Your task to perform on an android device: turn on showing notifications on the lock screen Image 0: 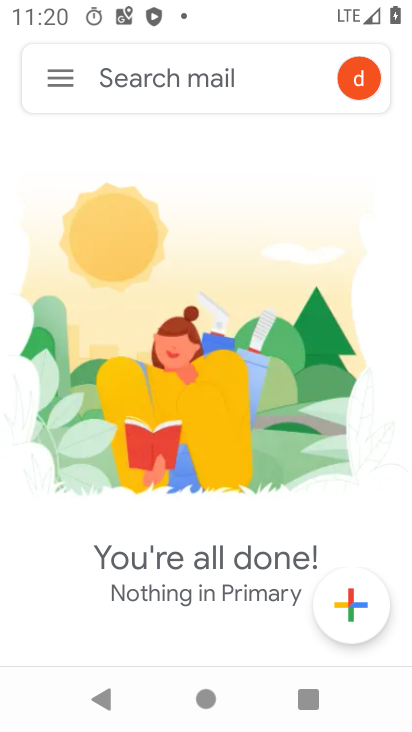
Step 0: press home button
Your task to perform on an android device: turn on showing notifications on the lock screen Image 1: 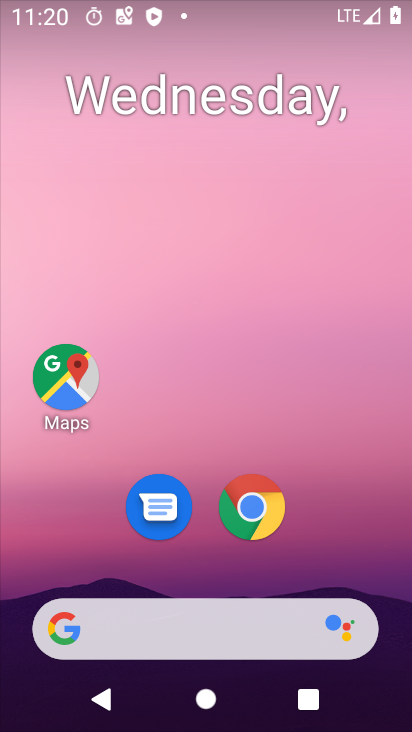
Step 1: drag from (236, 725) to (225, 0)
Your task to perform on an android device: turn on showing notifications on the lock screen Image 2: 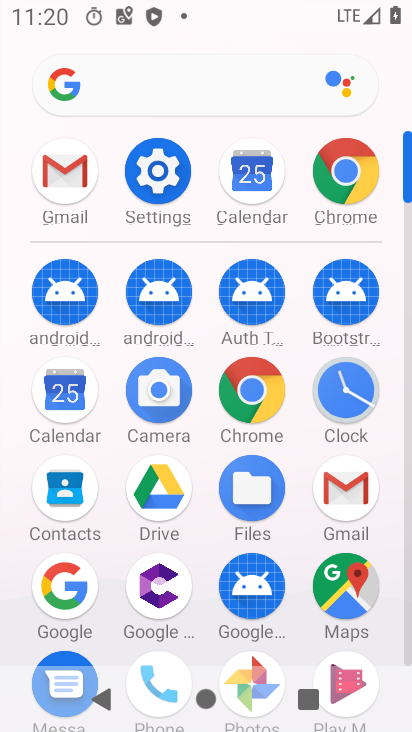
Step 2: click (162, 172)
Your task to perform on an android device: turn on showing notifications on the lock screen Image 3: 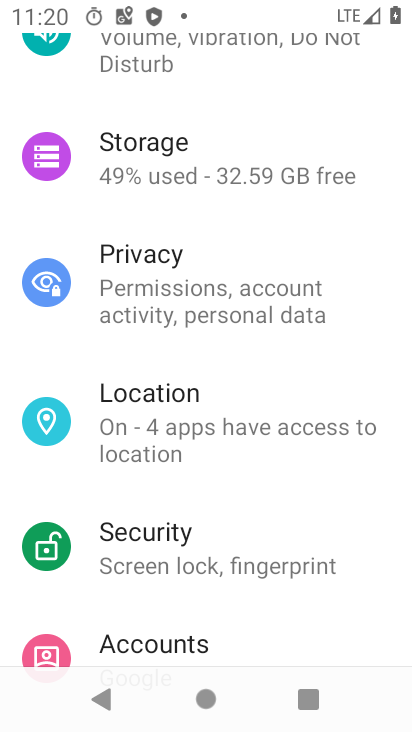
Step 3: drag from (256, 119) to (245, 581)
Your task to perform on an android device: turn on showing notifications on the lock screen Image 4: 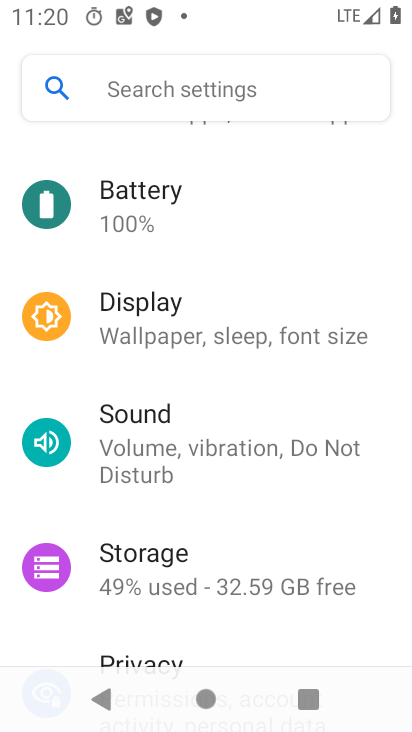
Step 4: drag from (245, 637) to (234, 250)
Your task to perform on an android device: turn on showing notifications on the lock screen Image 5: 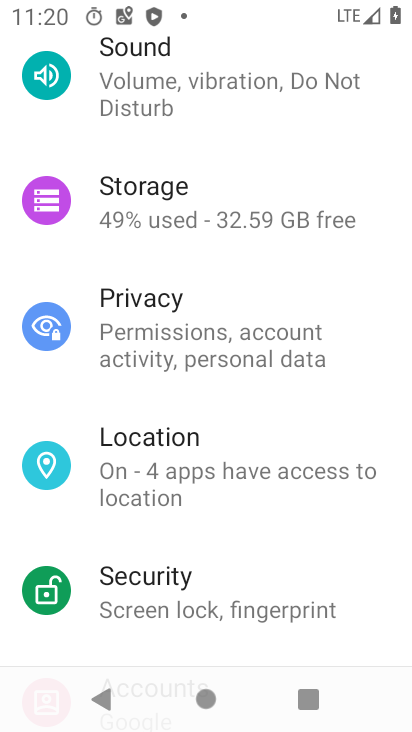
Step 5: drag from (258, 147) to (246, 576)
Your task to perform on an android device: turn on showing notifications on the lock screen Image 6: 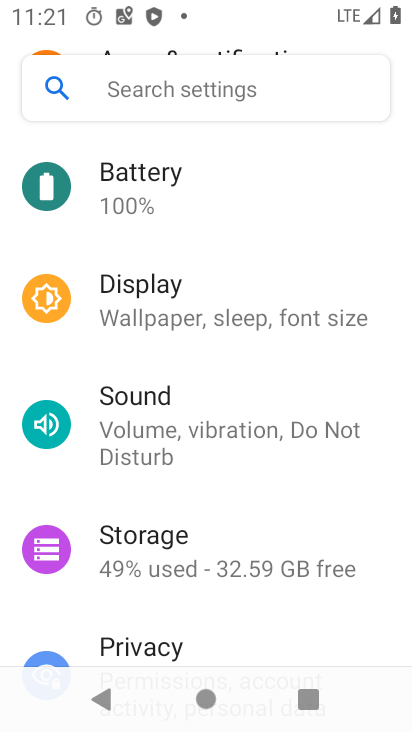
Step 6: drag from (271, 197) to (255, 601)
Your task to perform on an android device: turn on showing notifications on the lock screen Image 7: 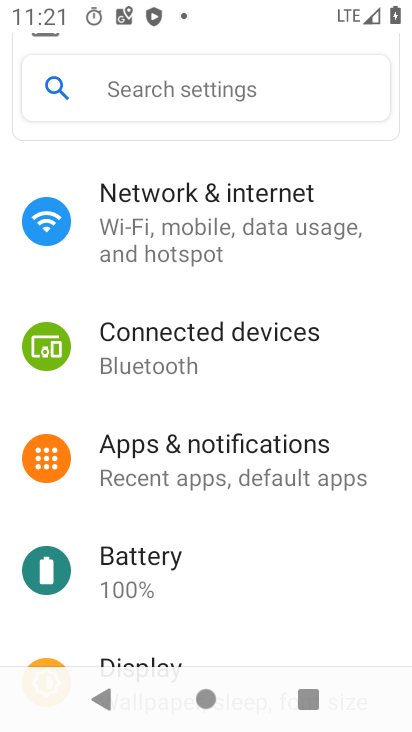
Step 7: click (254, 467)
Your task to perform on an android device: turn on showing notifications on the lock screen Image 8: 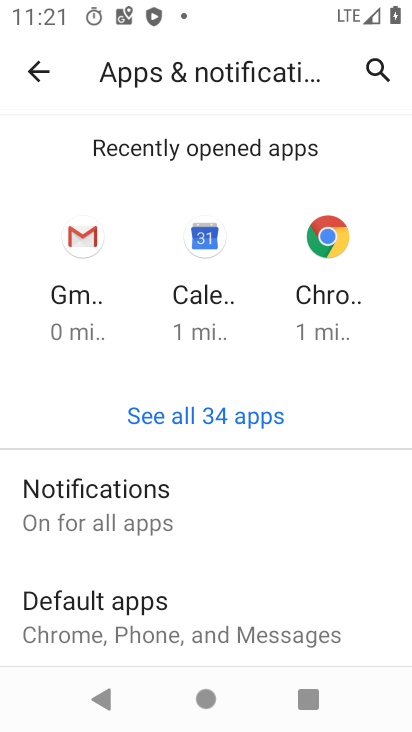
Step 8: click (128, 631)
Your task to perform on an android device: turn on showing notifications on the lock screen Image 9: 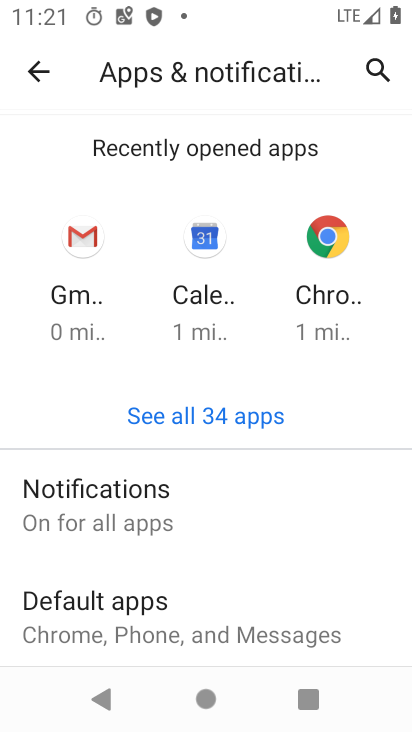
Step 9: drag from (135, 286) to (135, 247)
Your task to perform on an android device: turn on showing notifications on the lock screen Image 10: 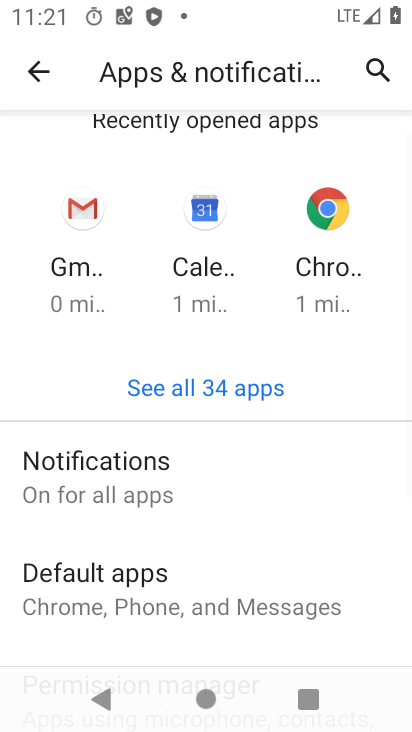
Step 10: click (111, 471)
Your task to perform on an android device: turn on showing notifications on the lock screen Image 11: 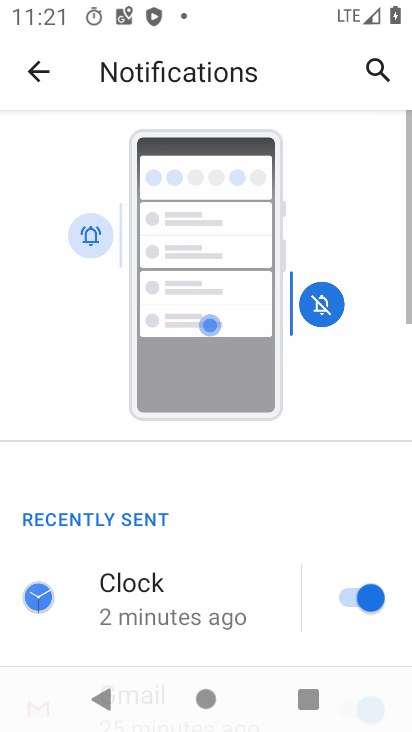
Step 11: task complete